Your task to perform on an android device: Check the news Image 0: 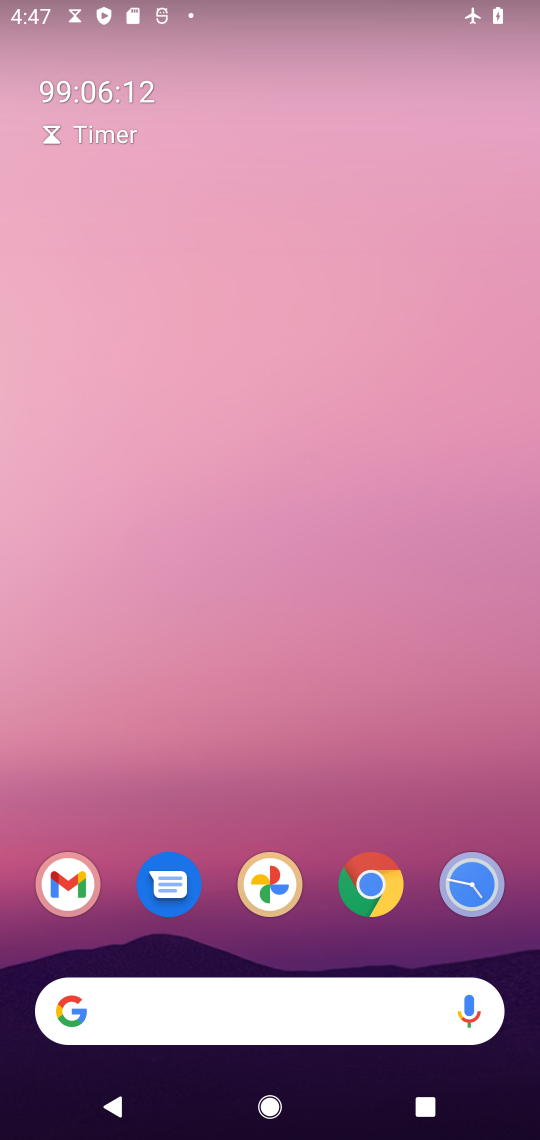
Step 0: click (373, 904)
Your task to perform on an android device: Check the news Image 1: 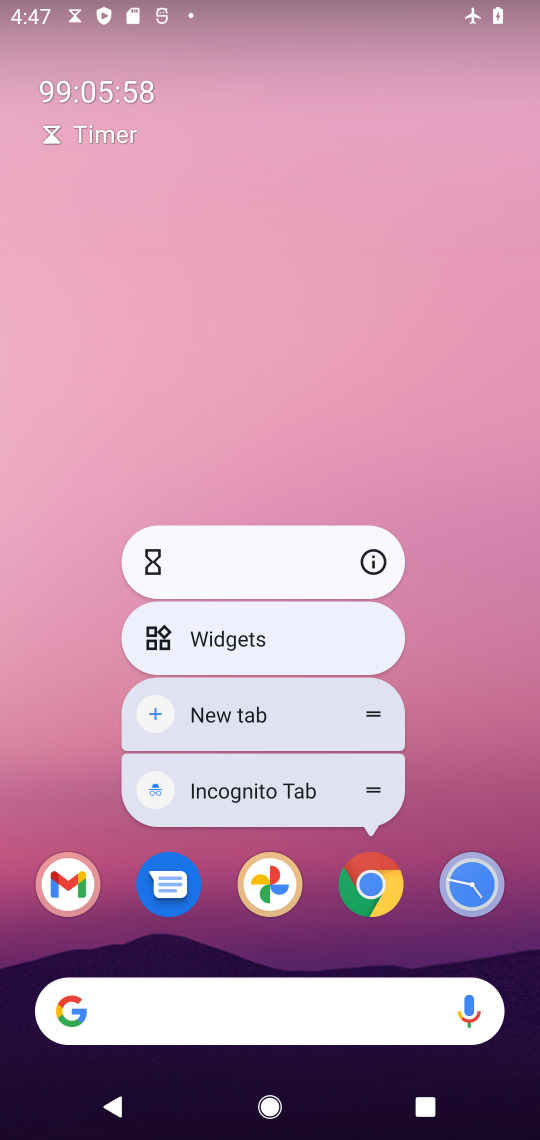
Step 1: click (370, 907)
Your task to perform on an android device: Check the news Image 2: 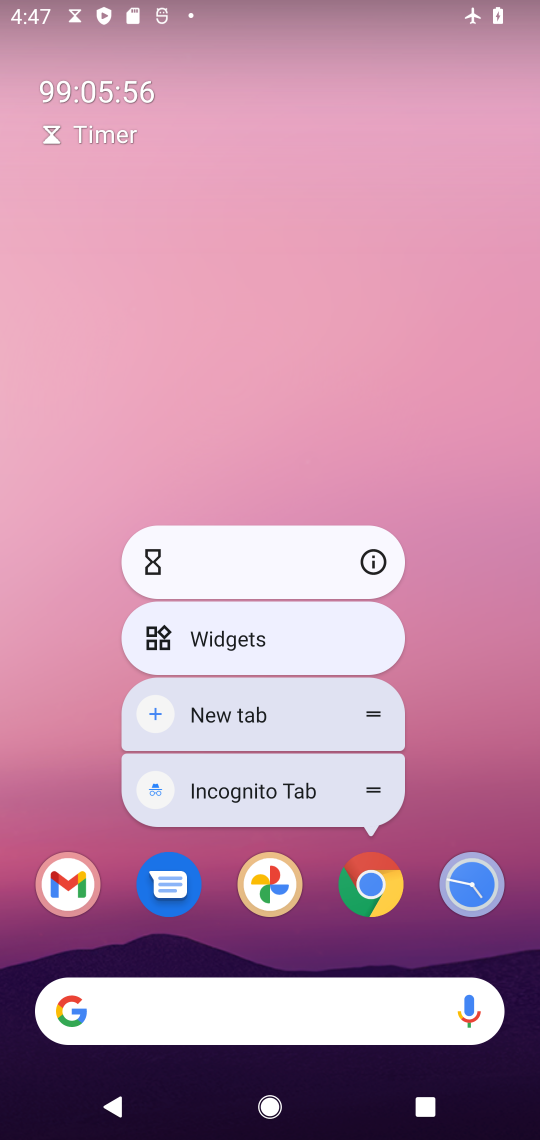
Step 2: click (370, 907)
Your task to perform on an android device: Check the news Image 3: 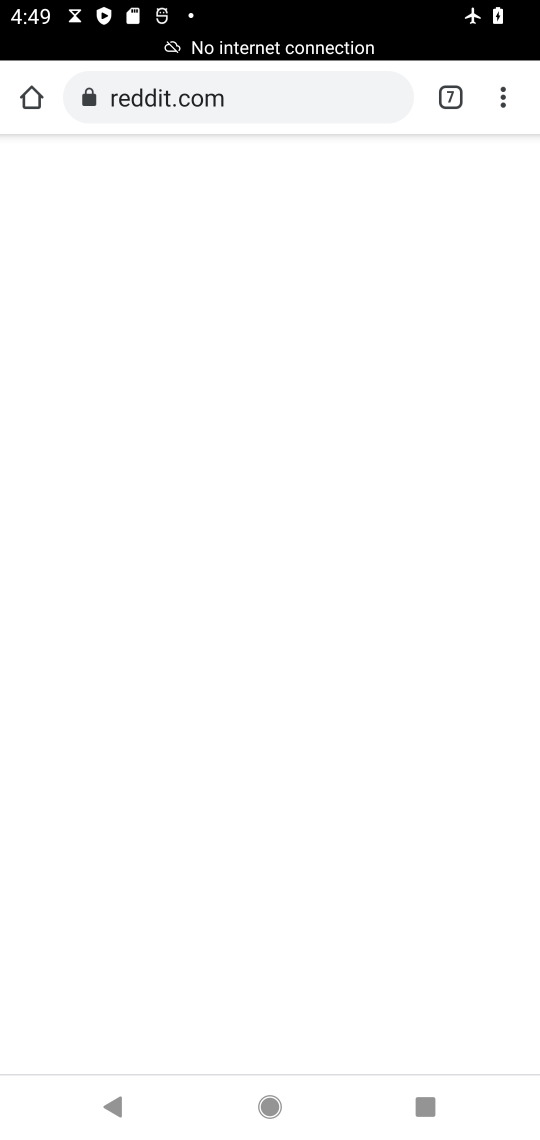
Step 3: click (487, 93)
Your task to perform on an android device: Check the news Image 4: 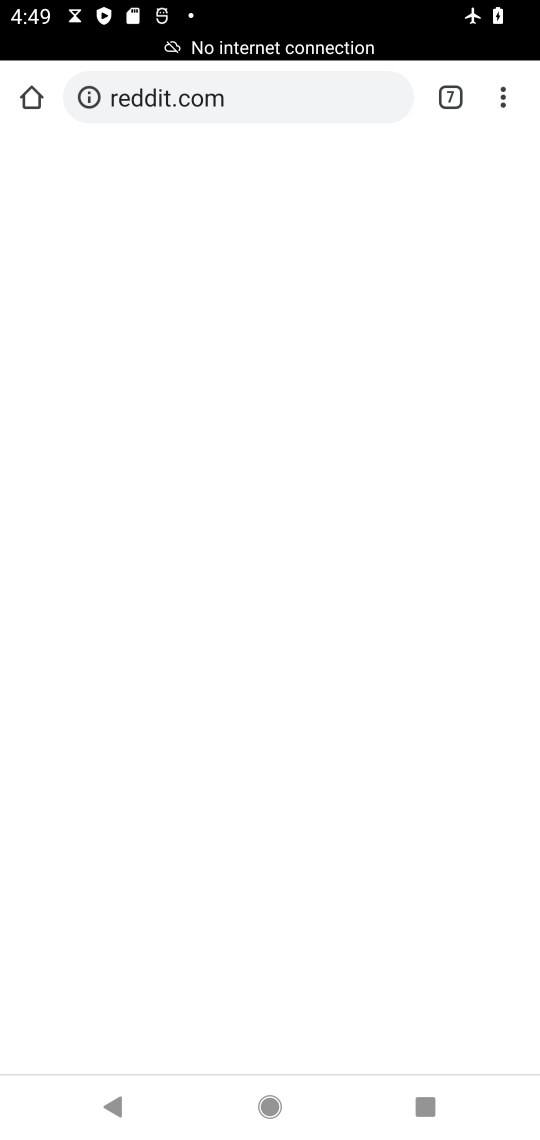
Step 4: click (507, 97)
Your task to perform on an android device: Check the news Image 5: 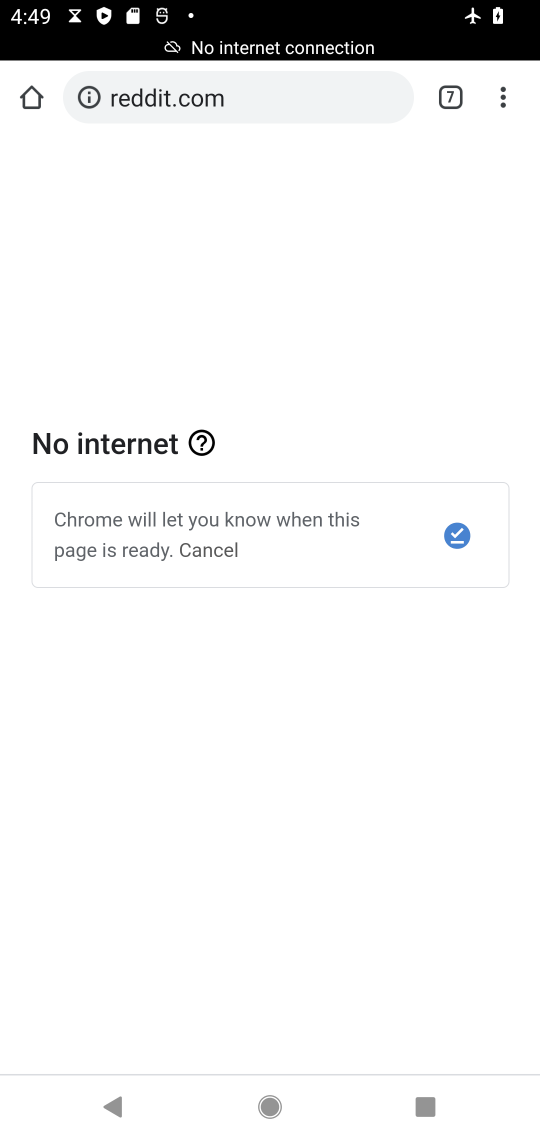
Step 5: click (507, 97)
Your task to perform on an android device: Check the news Image 6: 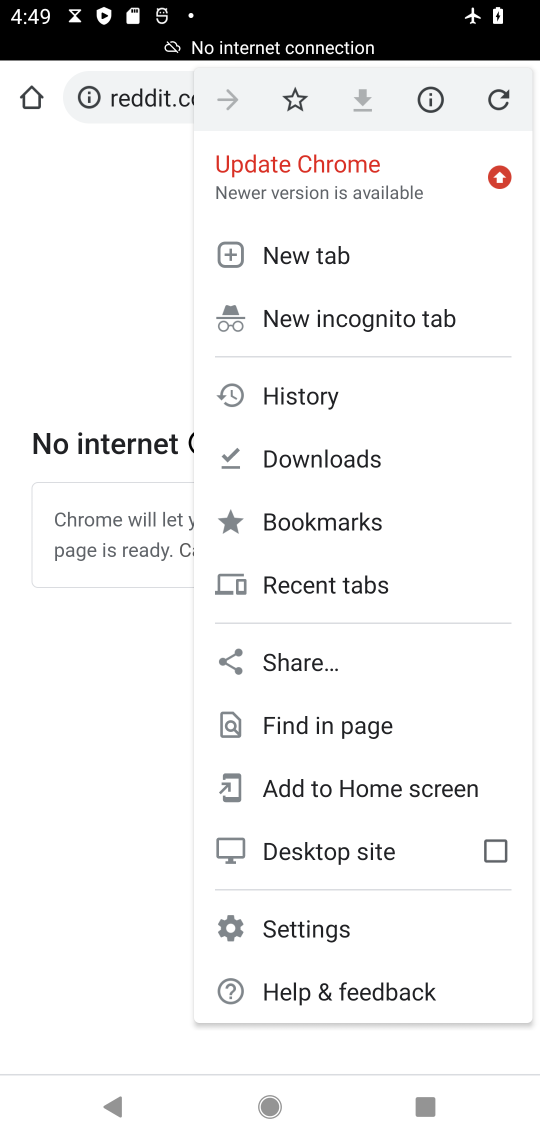
Step 6: click (329, 251)
Your task to perform on an android device: Check the news Image 7: 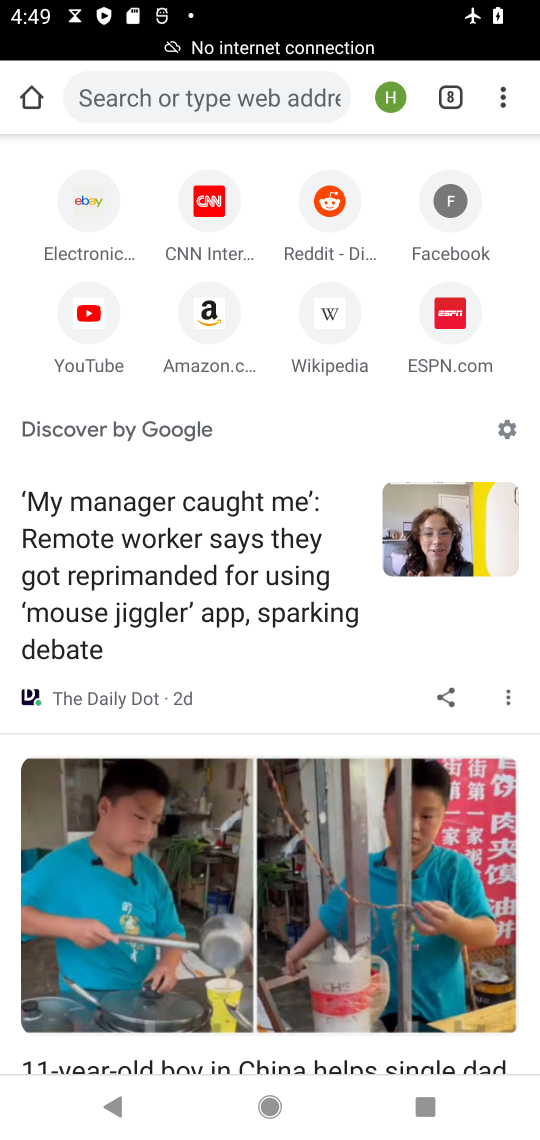
Step 7: click (259, 90)
Your task to perform on an android device: Check the news Image 8: 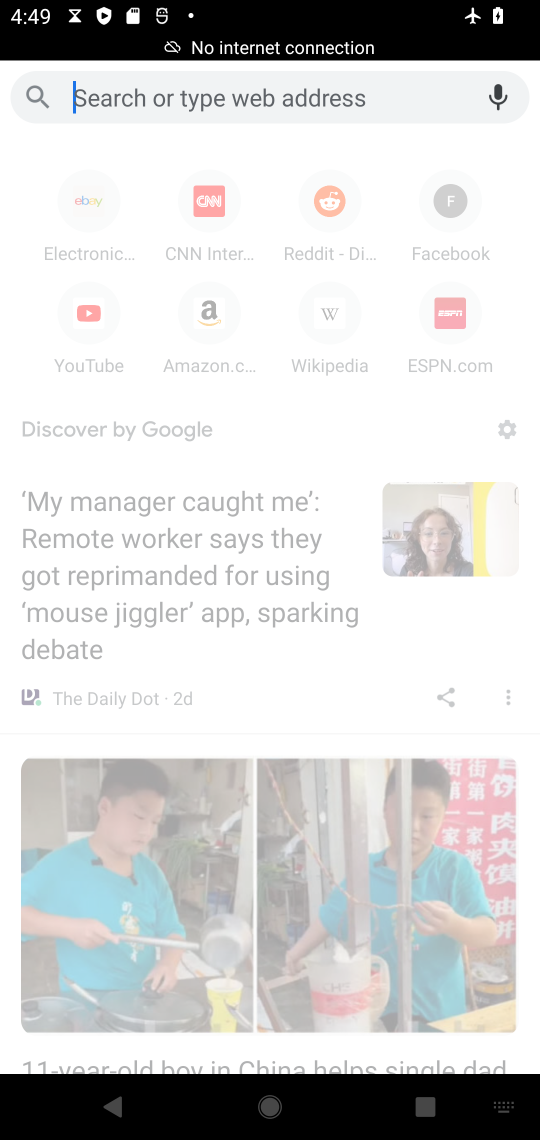
Step 8: type "Check the news "
Your task to perform on an android device: Check the news Image 9: 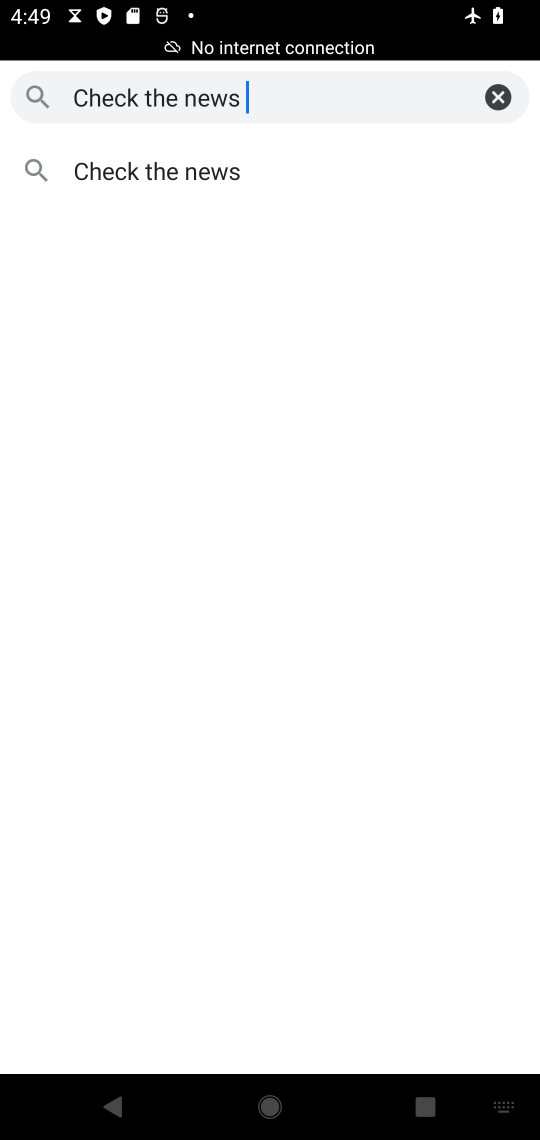
Step 9: click (224, 170)
Your task to perform on an android device: Check the news Image 10: 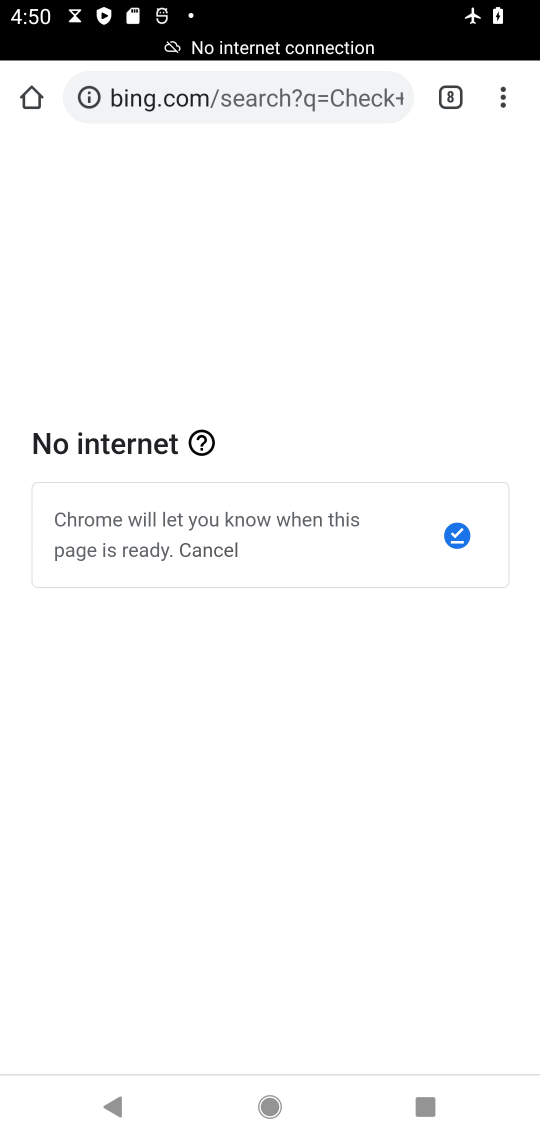
Step 10: task complete